Your task to perform on an android device: View the shopping cart on amazon.com. Image 0: 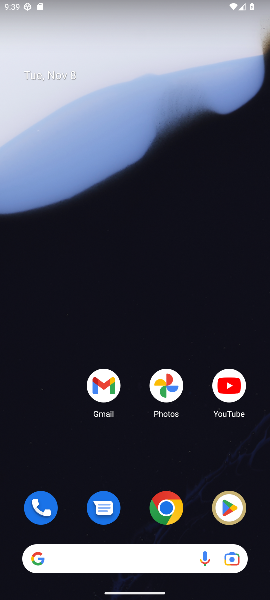
Step 0: click (172, 512)
Your task to perform on an android device: View the shopping cart on amazon.com. Image 1: 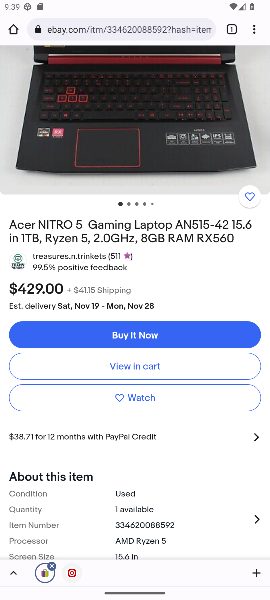
Step 1: click (105, 30)
Your task to perform on an android device: View the shopping cart on amazon.com. Image 2: 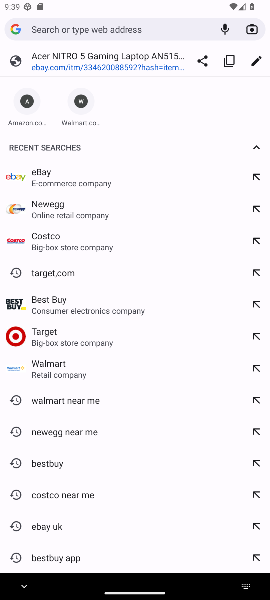
Step 2: type "amazon"
Your task to perform on an android device: View the shopping cart on amazon.com. Image 3: 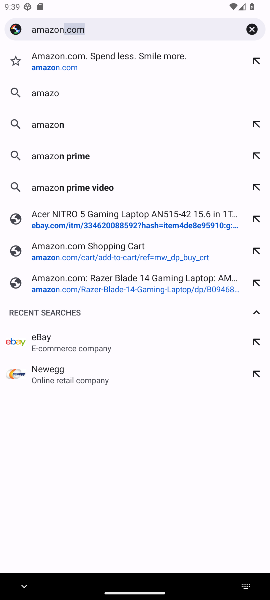
Step 3: type ""
Your task to perform on an android device: View the shopping cart on amazon.com. Image 4: 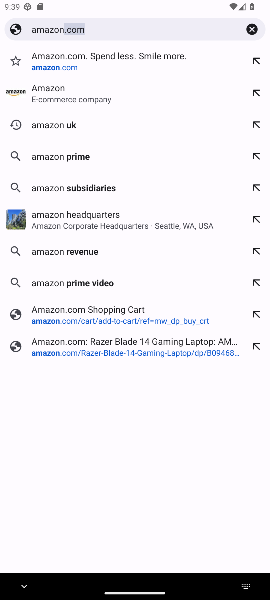
Step 4: click (60, 92)
Your task to perform on an android device: View the shopping cart on amazon.com. Image 5: 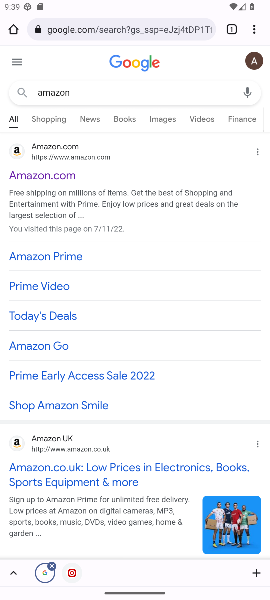
Step 5: click (36, 175)
Your task to perform on an android device: View the shopping cart on amazon.com. Image 6: 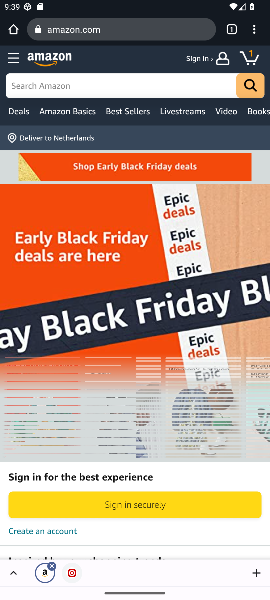
Step 6: click (81, 93)
Your task to perform on an android device: View the shopping cart on amazon.com. Image 7: 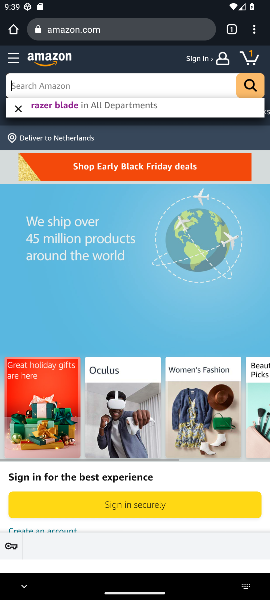
Step 7: type "shopping cart"
Your task to perform on an android device: View the shopping cart on amazon.com. Image 8: 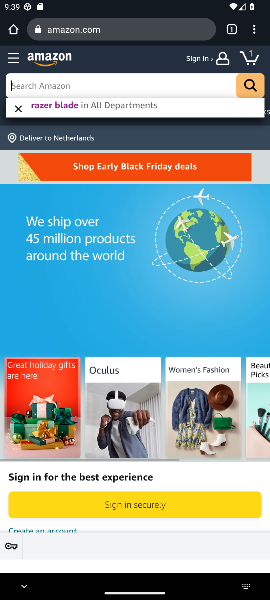
Step 8: type ""
Your task to perform on an android device: View the shopping cart on amazon.com. Image 9: 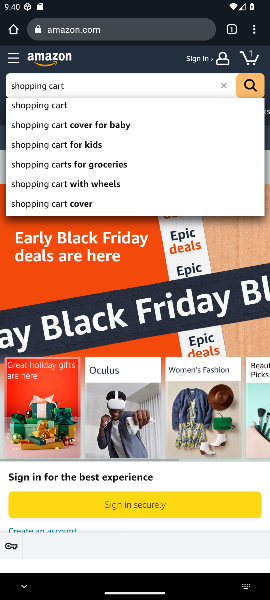
Step 9: click (30, 108)
Your task to perform on an android device: View the shopping cart on amazon.com. Image 10: 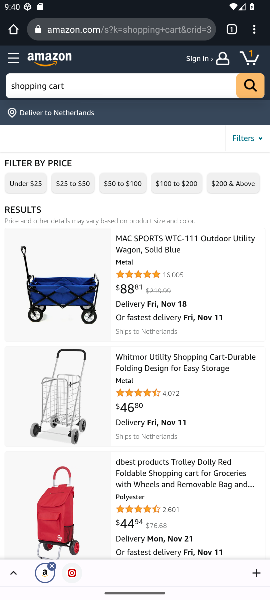
Step 10: drag from (99, 513) to (177, 82)
Your task to perform on an android device: View the shopping cart on amazon.com. Image 11: 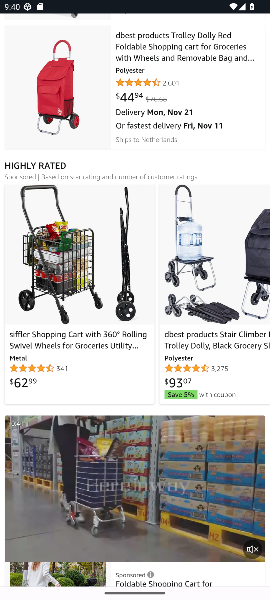
Step 11: click (48, 270)
Your task to perform on an android device: View the shopping cart on amazon.com. Image 12: 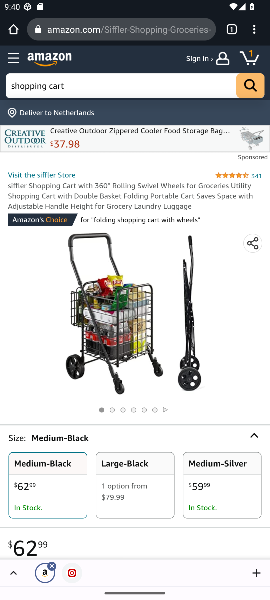
Step 12: drag from (68, 376) to (119, 115)
Your task to perform on an android device: View the shopping cart on amazon.com. Image 13: 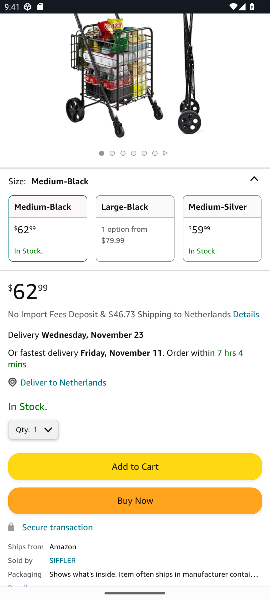
Step 13: click (135, 468)
Your task to perform on an android device: View the shopping cart on amazon.com. Image 14: 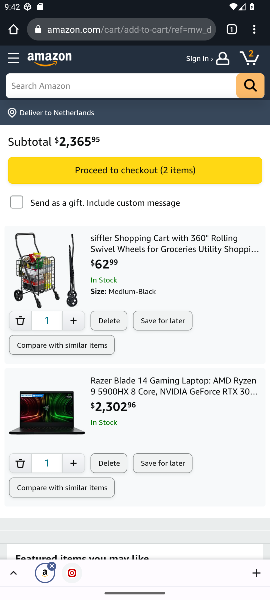
Step 14: click (245, 50)
Your task to perform on an android device: View the shopping cart on amazon.com. Image 15: 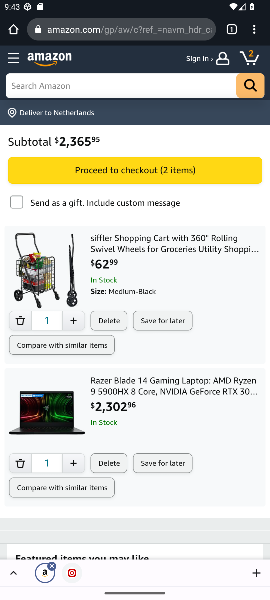
Step 15: click (18, 320)
Your task to perform on an android device: View the shopping cart on amazon.com. Image 16: 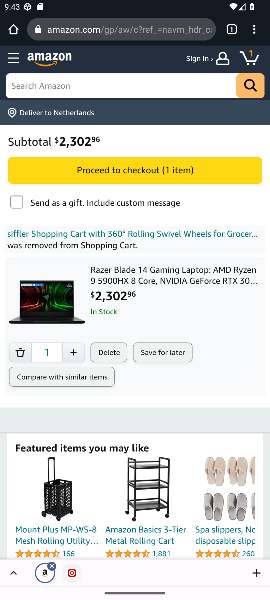
Step 16: click (16, 356)
Your task to perform on an android device: View the shopping cart on amazon.com. Image 17: 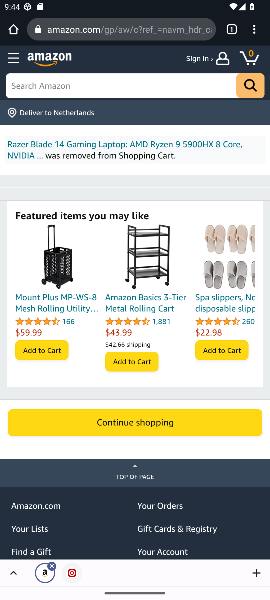
Step 17: task complete